Your task to perform on an android device: Open settings Image 0: 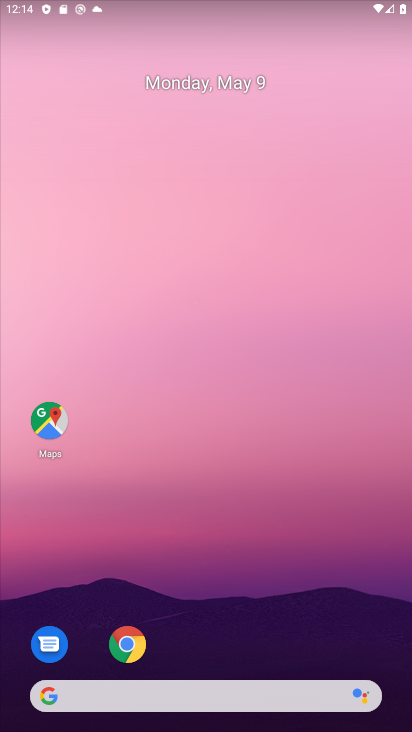
Step 0: drag from (363, 610) to (80, 66)
Your task to perform on an android device: Open settings Image 1: 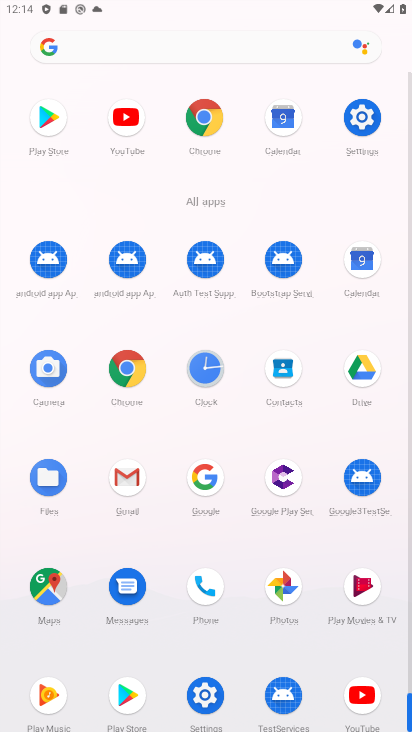
Step 1: click (364, 121)
Your task to perform on an android device: Open settings Image 2: 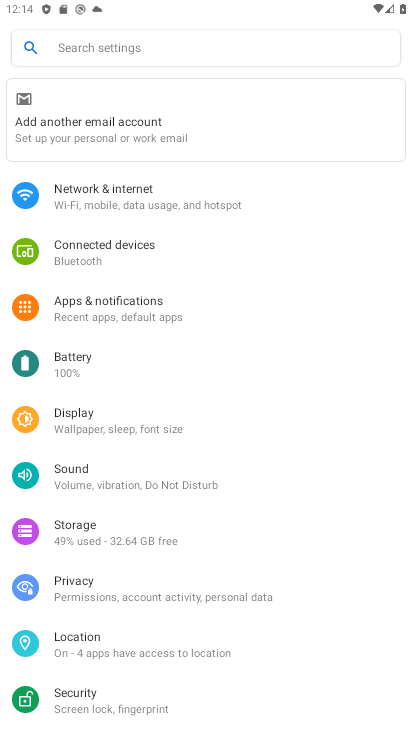
Step 2: task complete